Your task to perform on an android device: Search for Mexican restaurants on Maps Image 0: 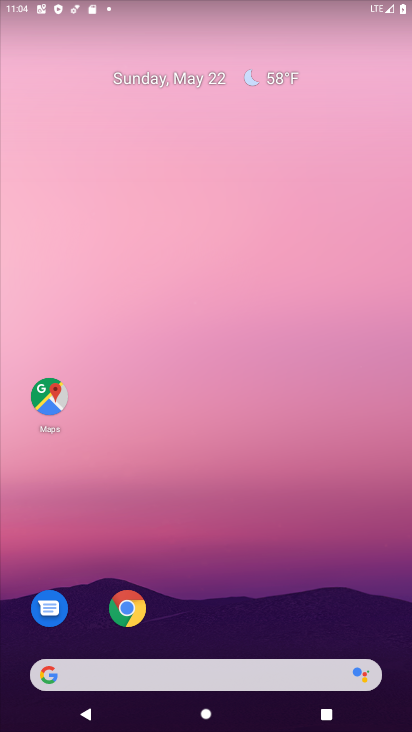
Step 0: drag from (247, 720) to (105, 14)
Your task to perform on an android device: Search for Mexican restaurants on Maps Image 1: 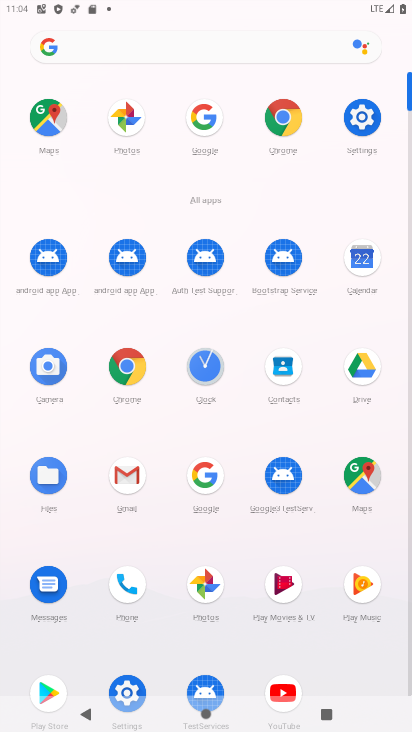
Step 1: click (361, 475)
Your task to perform on an android device: Search for Mexican restaurants on Maps Image 2: 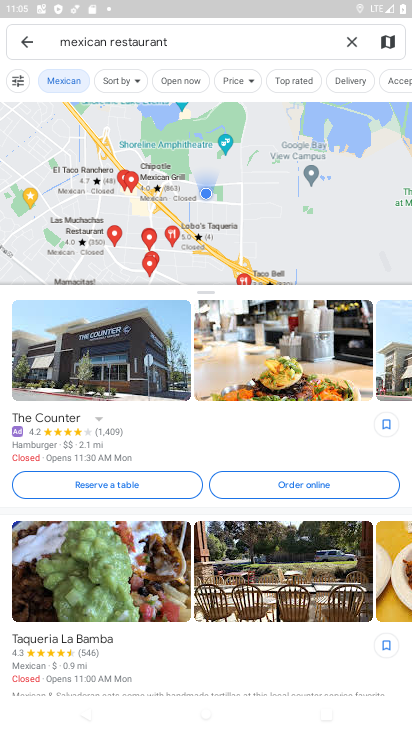
Step 2: task complete